Your task to perform on an android device: Open Chrome and go to the settings page Image 0: 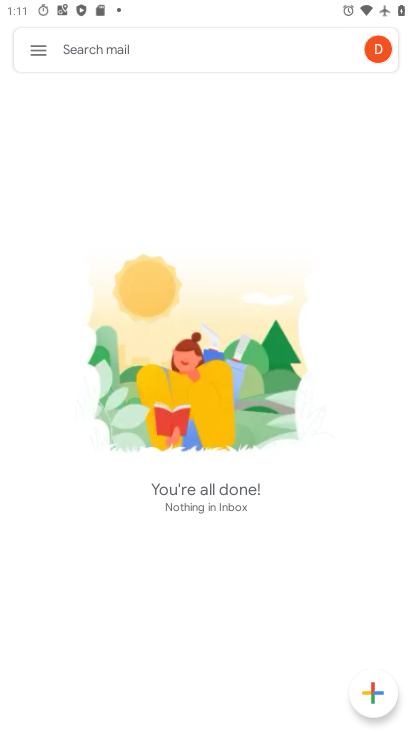
Step 0: press home button
Your task to perform on an android device: Open Chrome and go to the settings page Image 1: 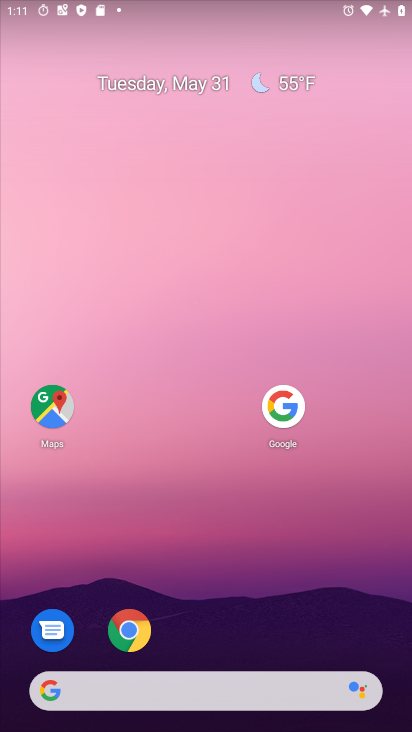
Step 1: click (138, 633)
Your task to perform on an android device: Open Chrome and go to the settings page Image 2: 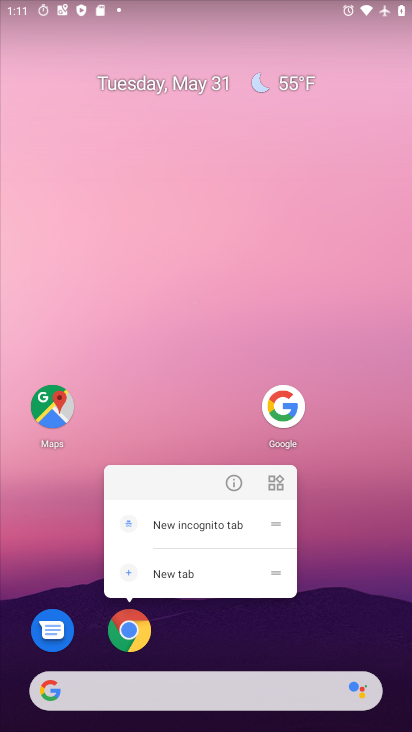
Step 2: click (129, 634)
Your task to perform on an android device: Open Chrome and go to the settings page Image 3: 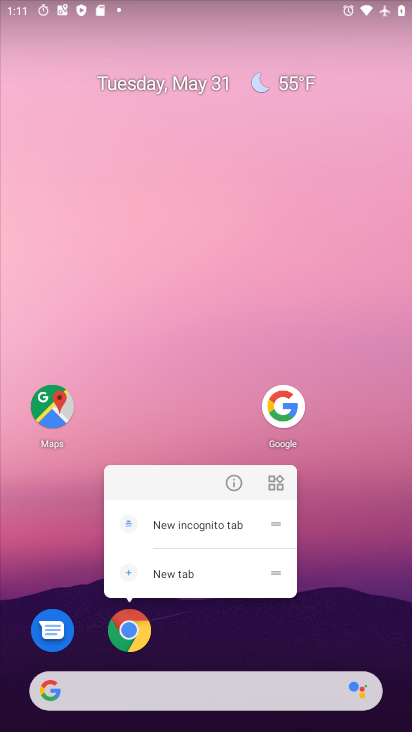
Step 3: click (126, 637)
Your task to perform on an android device: Open Chrome and go to the settings page Image 4: 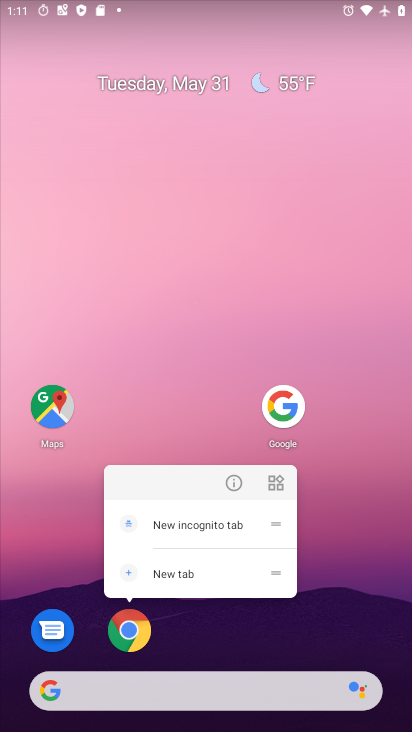
Step 4: click (133, 630)
Your task to perform on an android device: Open Chrome and go to the settings page Image 5: 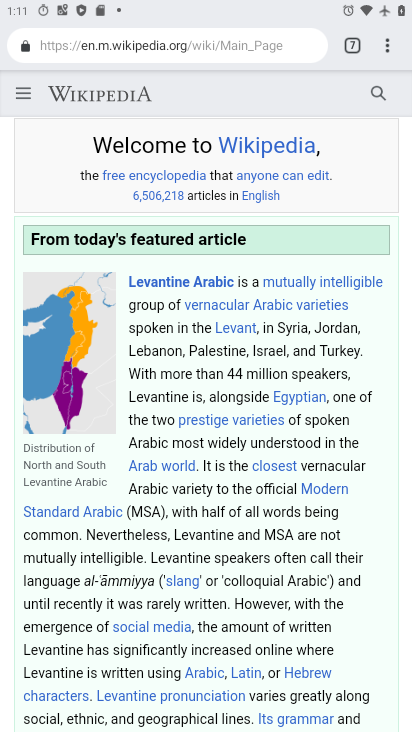
Step 5: task complete